Your task to perform on an android device: Show me recent news Image 0: 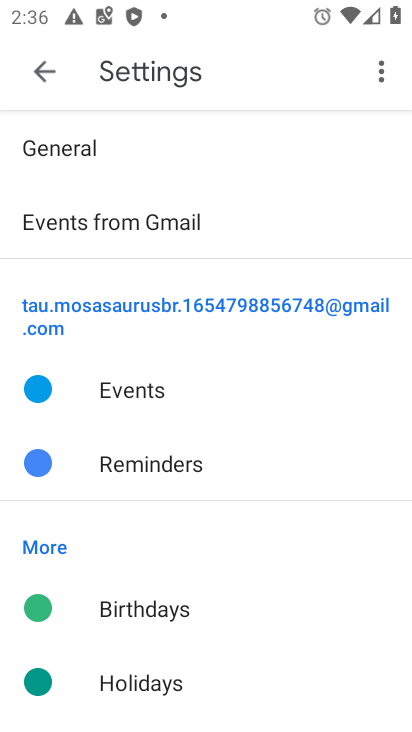
Step 0: press home button
Your task to perform on an android device: Show me recent news Image 1: 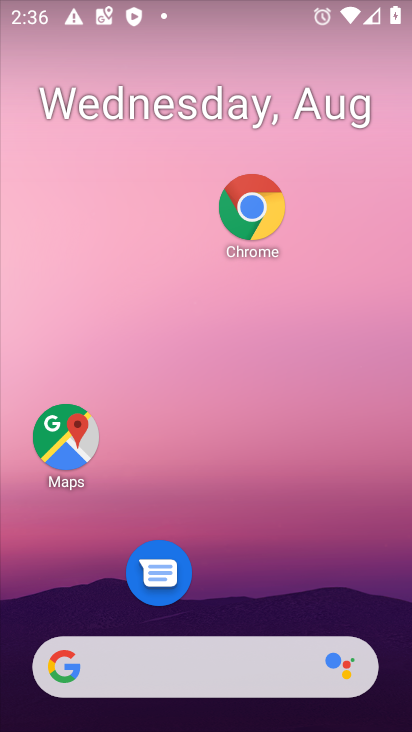
Step 1: drag from (274, 513) to (323, 120)
Your task to perform on an android device: Show me recent news Image 2: 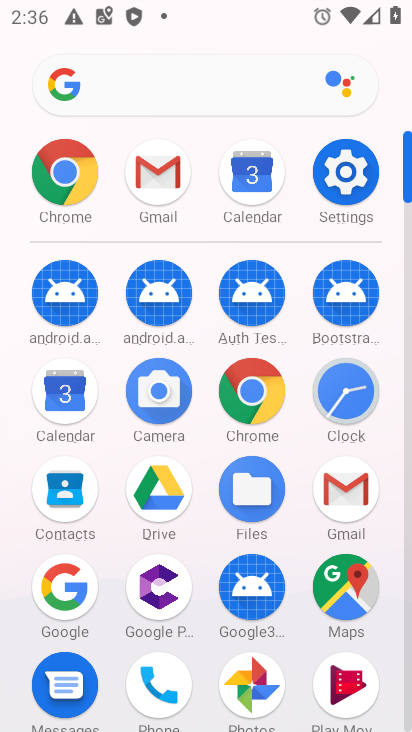
Step 2: click (323, 119)
Your task to perform on an android device: Show me recent news Image 3: 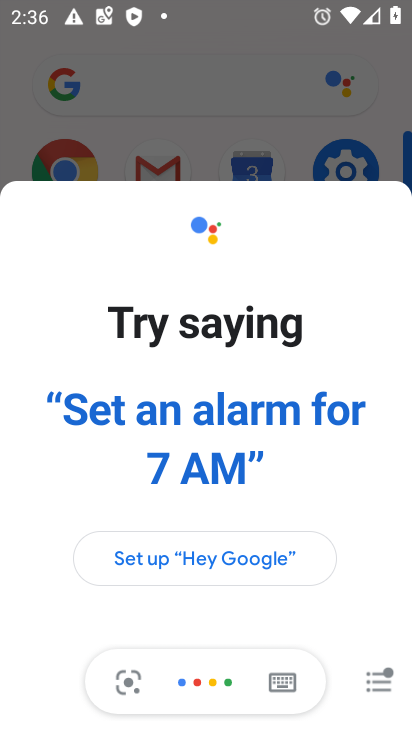
Step 3: press back button
Your task to perform on an android device: Show me recent news Image 4: 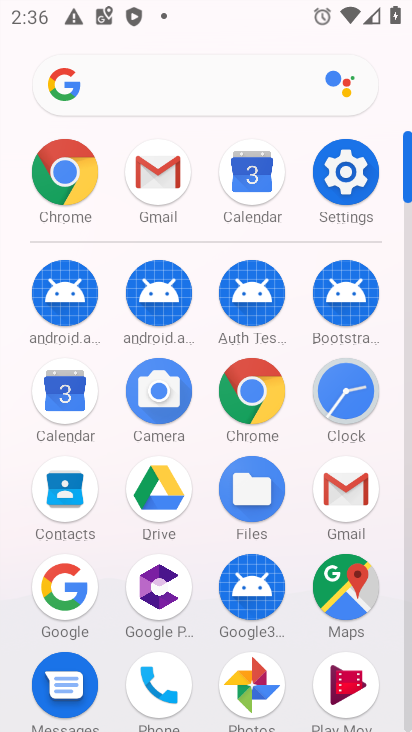
Step 4: click (77, 595)
Your task to perform on an android device: Show me recent news Image 5: 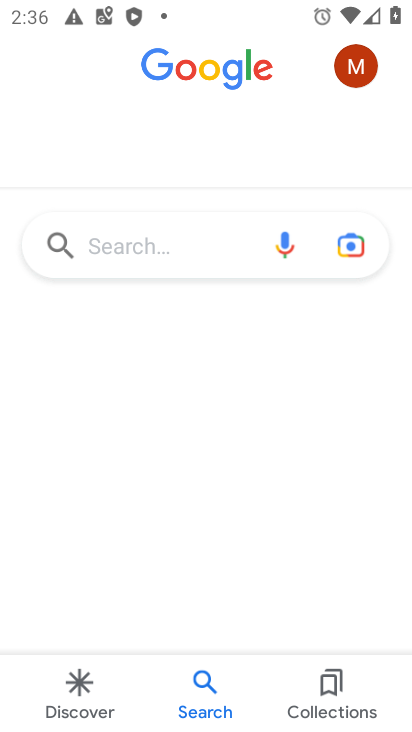
Step 5: click (186, 262)
Your task to perform on an android device: Show me recent news Image 6: 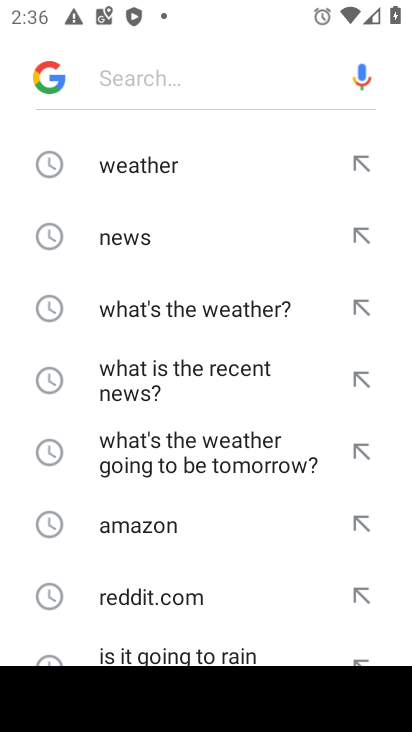
Step 6: click (214, 230)
Your task to perform on an android device: Show me recent news Image 7: 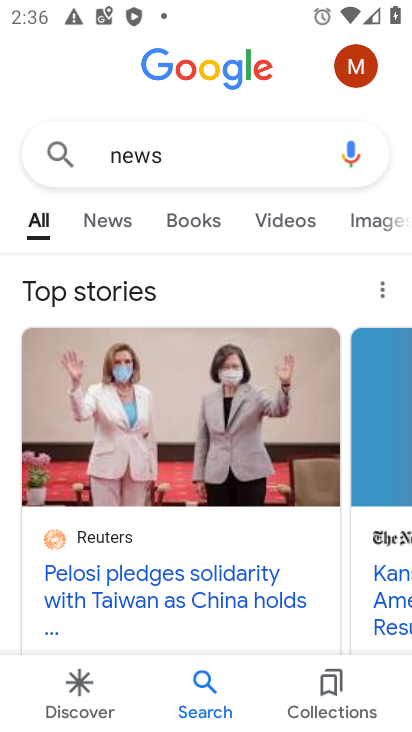
Step 7: click (112, 206)
Your task to perform on an android device: Show me recent news Image 8: 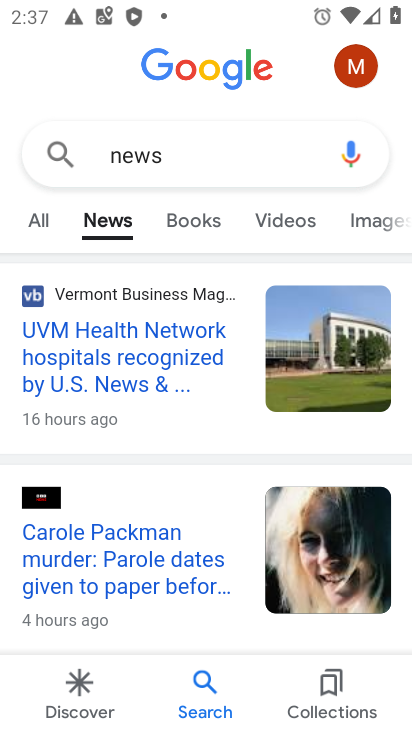
Step 8: task complete